Your task to perform on an android device: open app "Booking.com: Hotels and more" (install if not already installed), go to login, and select forgot password Image 0: 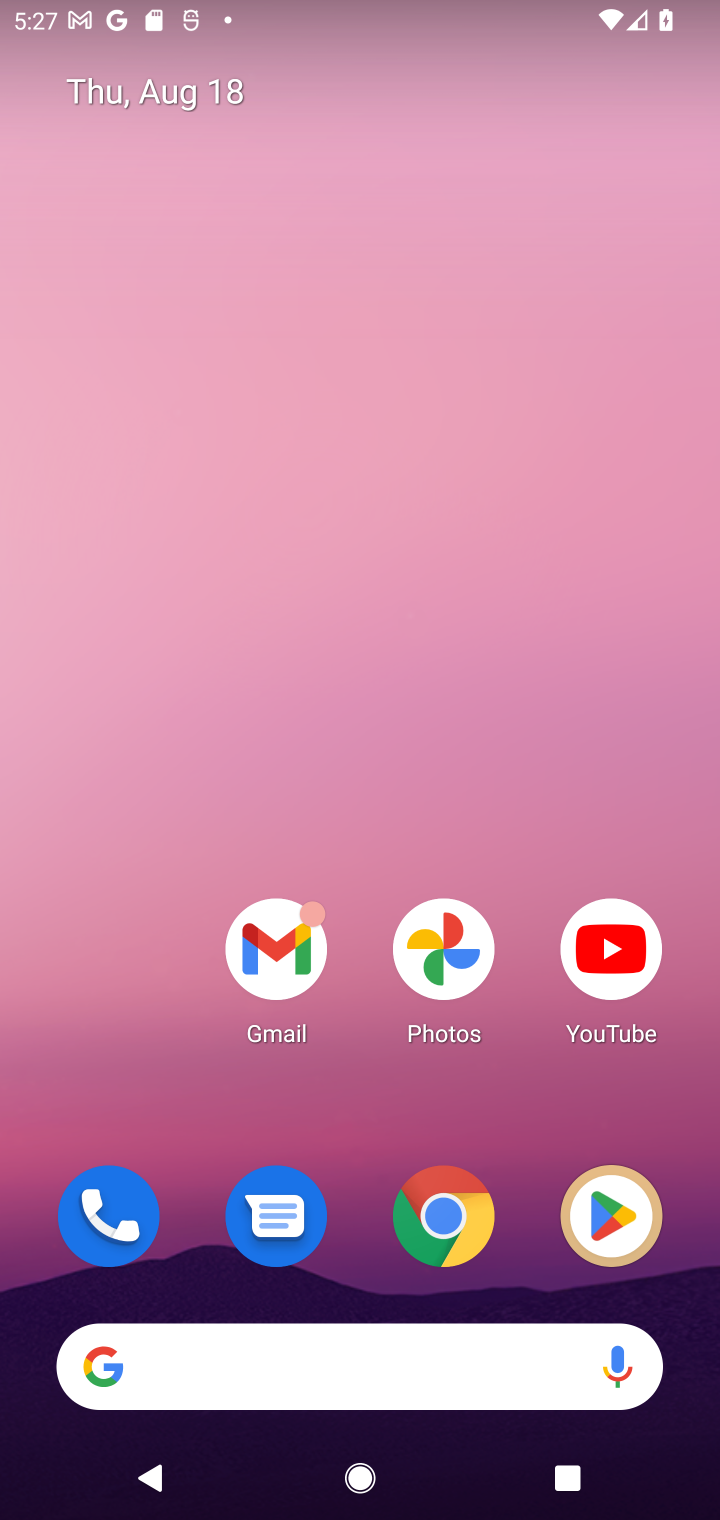
Step 0: click (612, 1220)
Your task to perform on an android device: open app "Booking.com: Hotels and more" (install if not already installed), go to login, and select forgot password Image 1: 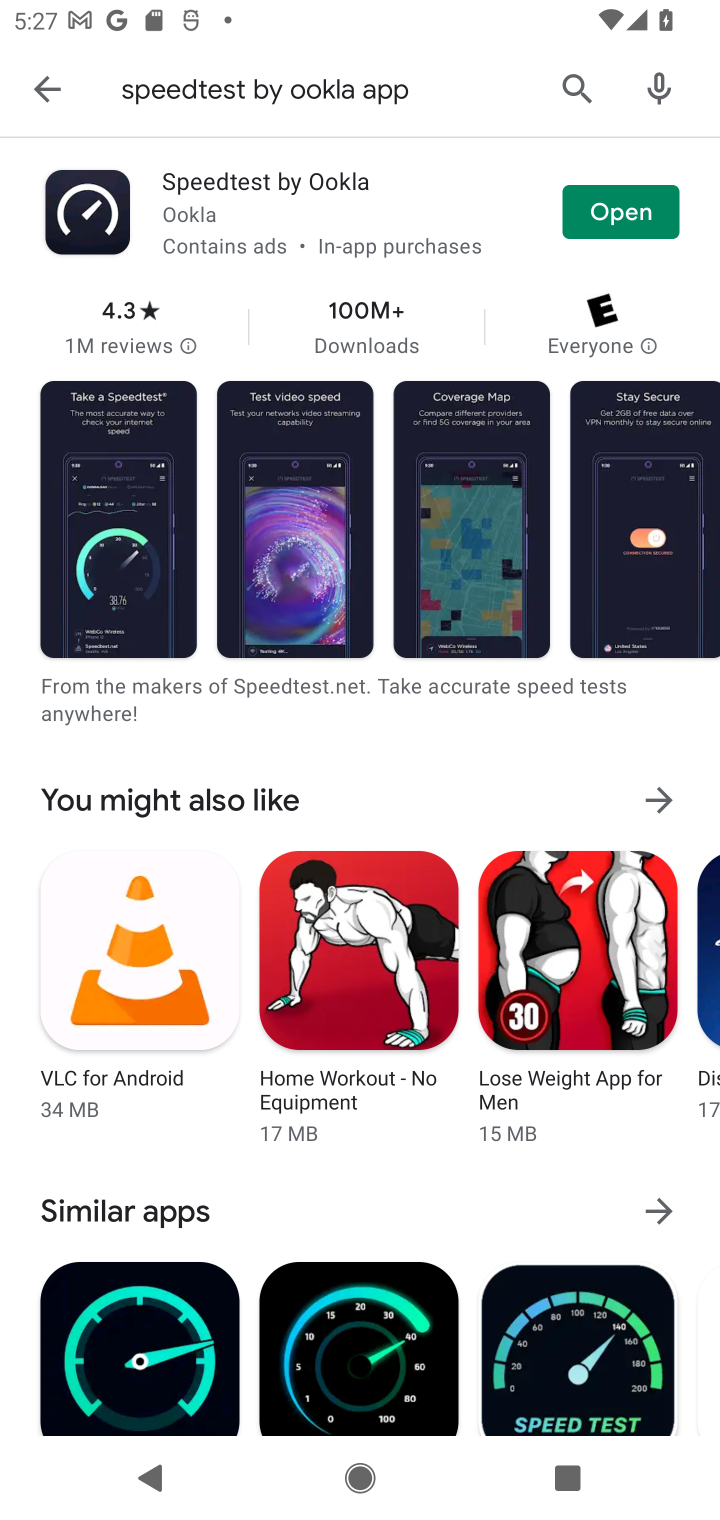
Step 1: click (571, 82)
Your task to perform on an android device: open app "Booking.com: Hotels and more" (install if not already installed), go to login, and select forgot password Image 2: 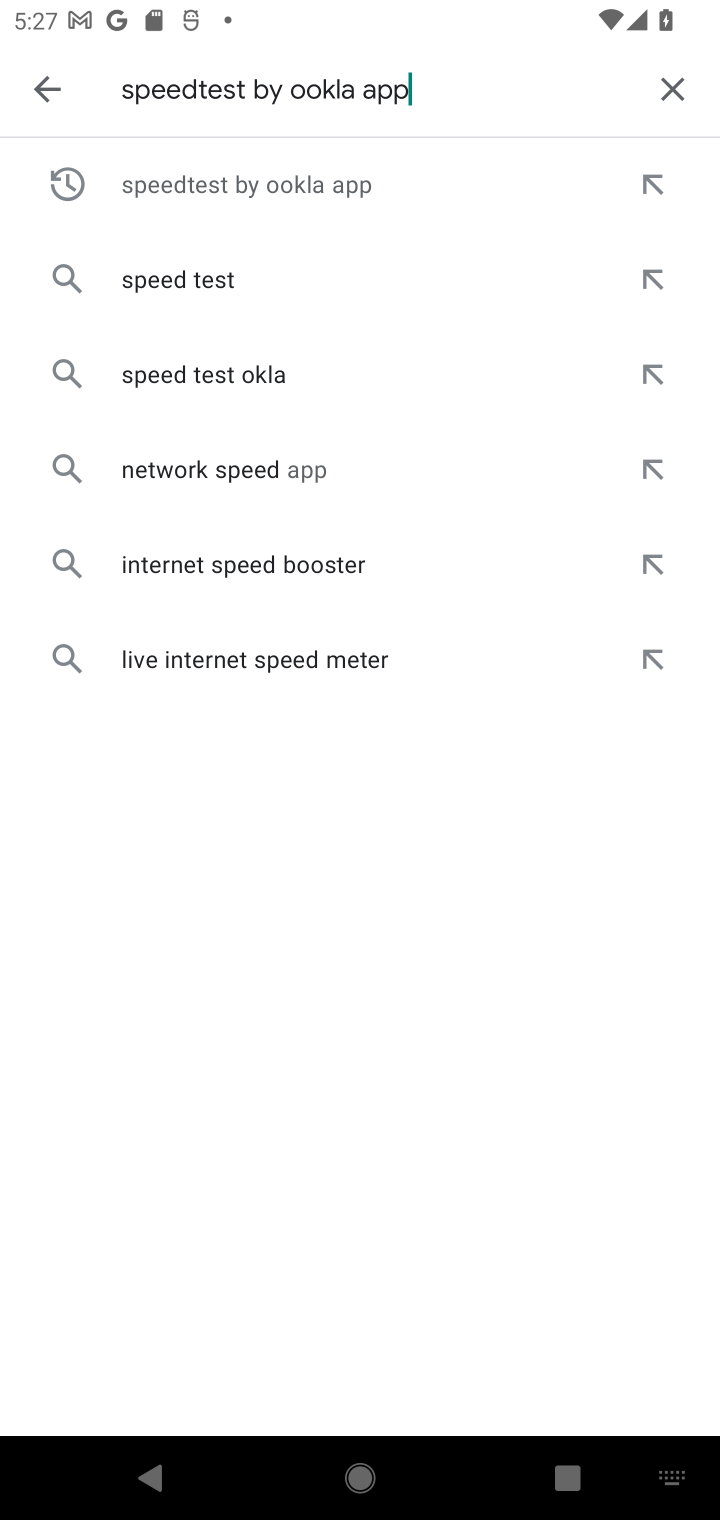
Step 2: click (664, 88)
Your task to perform on an android device: open app "Booking.com: Hotels and more" (install if not already installed), go to login, and select forgot password Image 3: 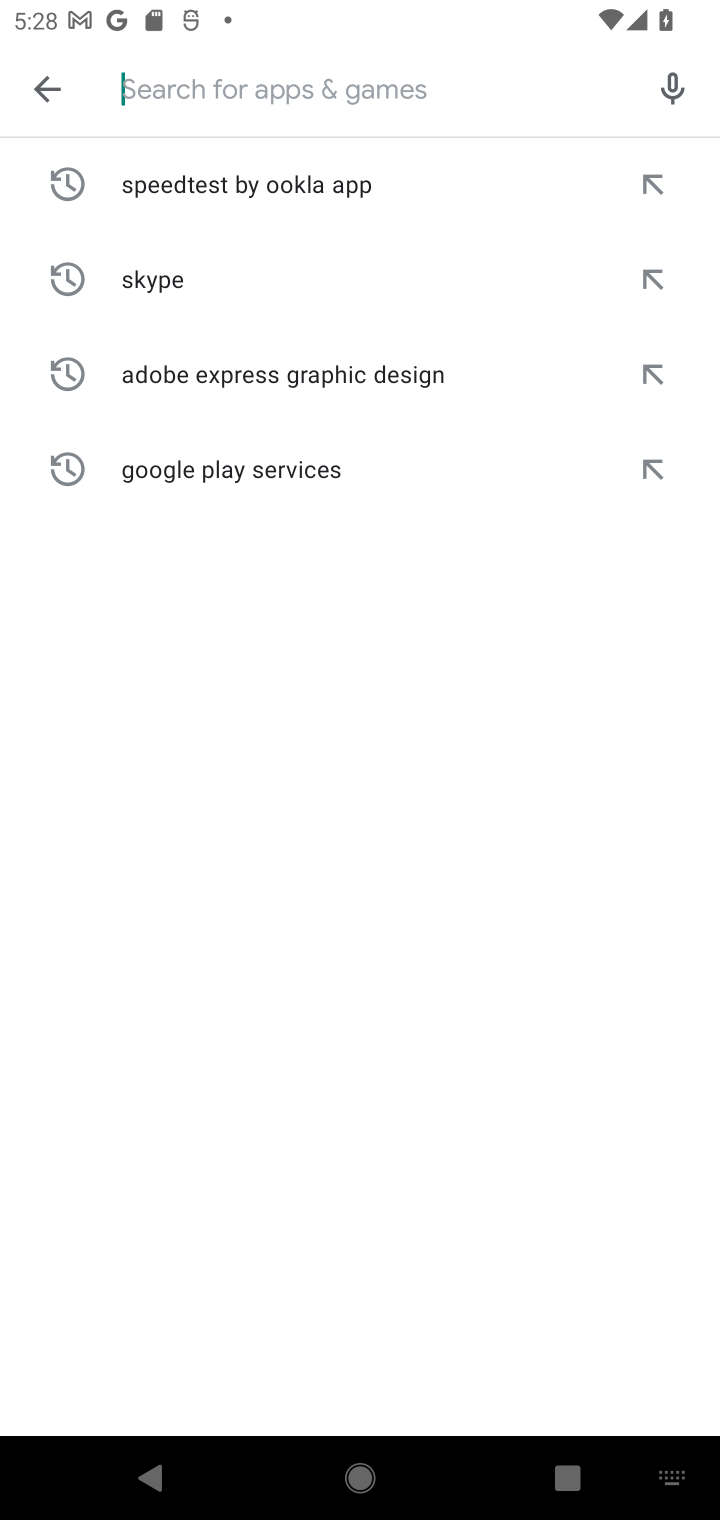
Step 3: type "Booking.com: Hotels and more"
Your task to perform on an android device: open app "Booking.com: Hotels and more" (install if not already installed), go to login, and select forgot password Image 4: 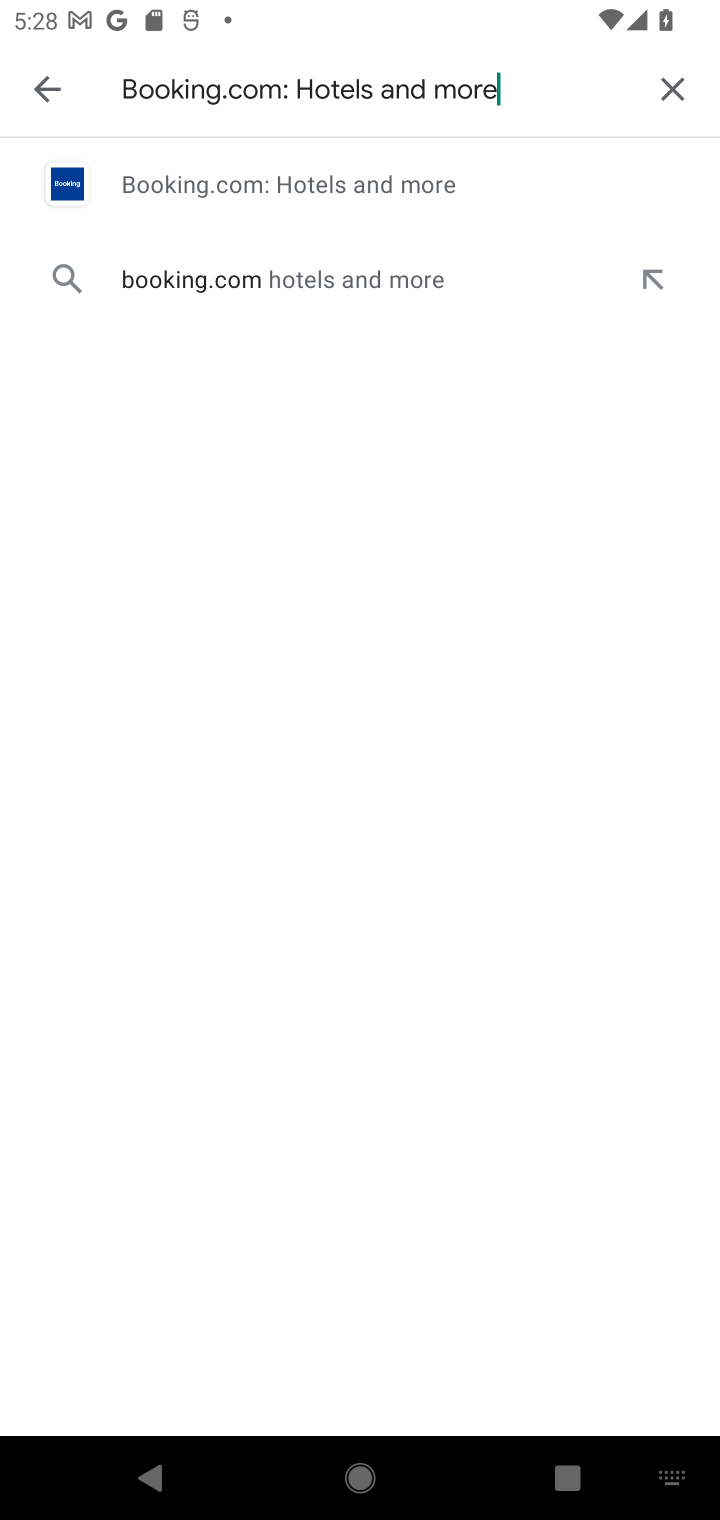
Step 4: click (287, 184)
Your task to perform on an android device: open app "Booking.com: Hotels and more" (install if not already installed), go to login, and select forgot password Image 5: 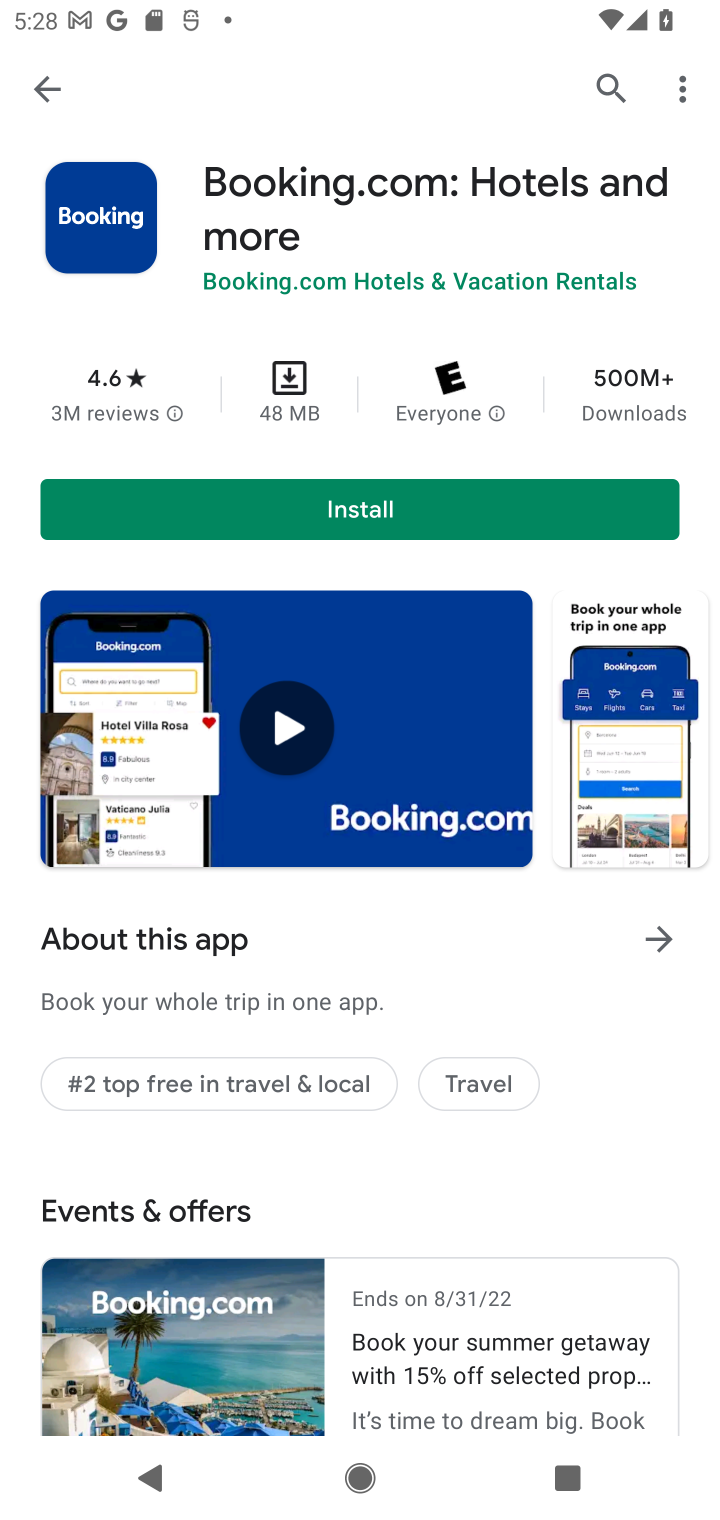
Step 5: click (350, 508)
Your task to perform on an android device: open app "Booking.com: Hotels and more" (install if not already installed), go to login, and select forgot password Image 6: 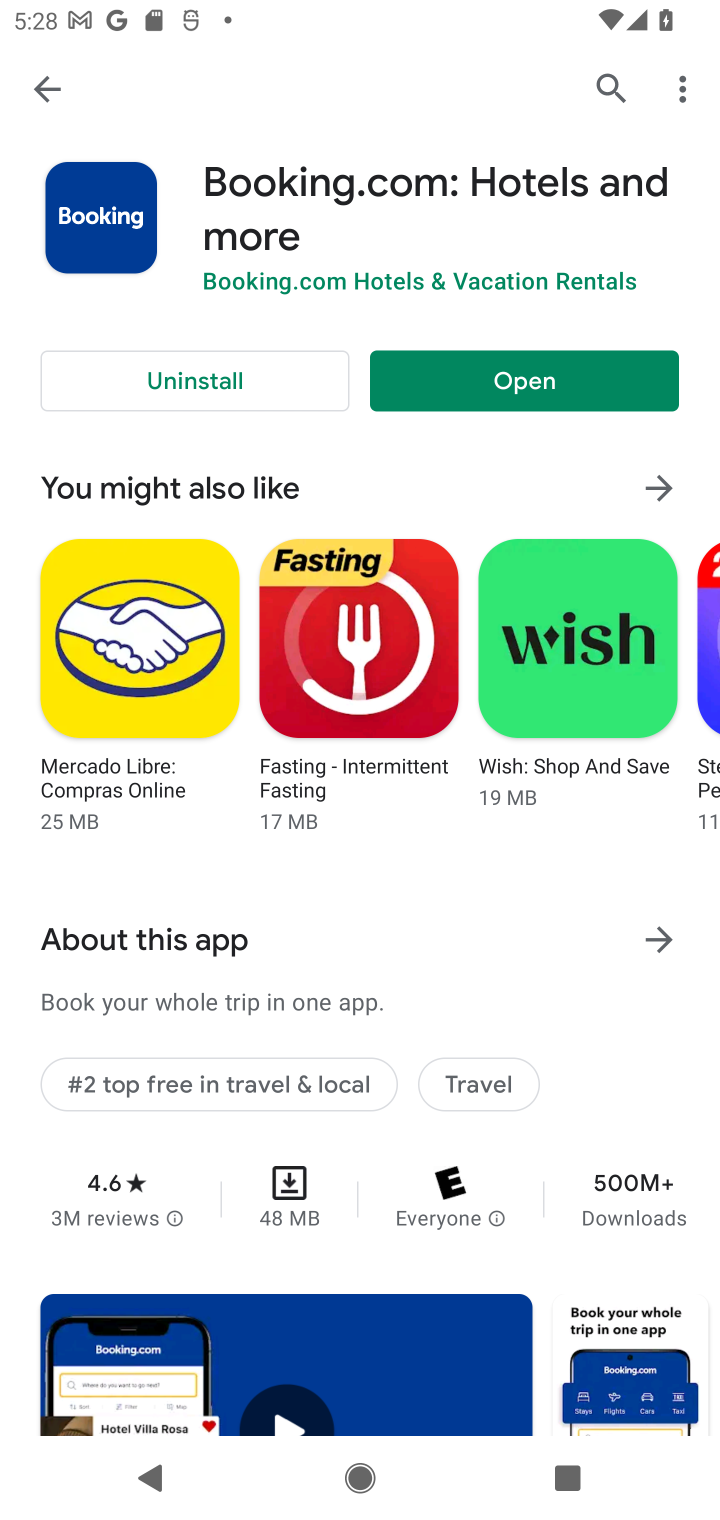
Step 6: click (523, 392)
Your task to perform on an android device: open app "Booking.com: Hotels and more" (install if not already installed), go to login, and select forgot password Image 7: 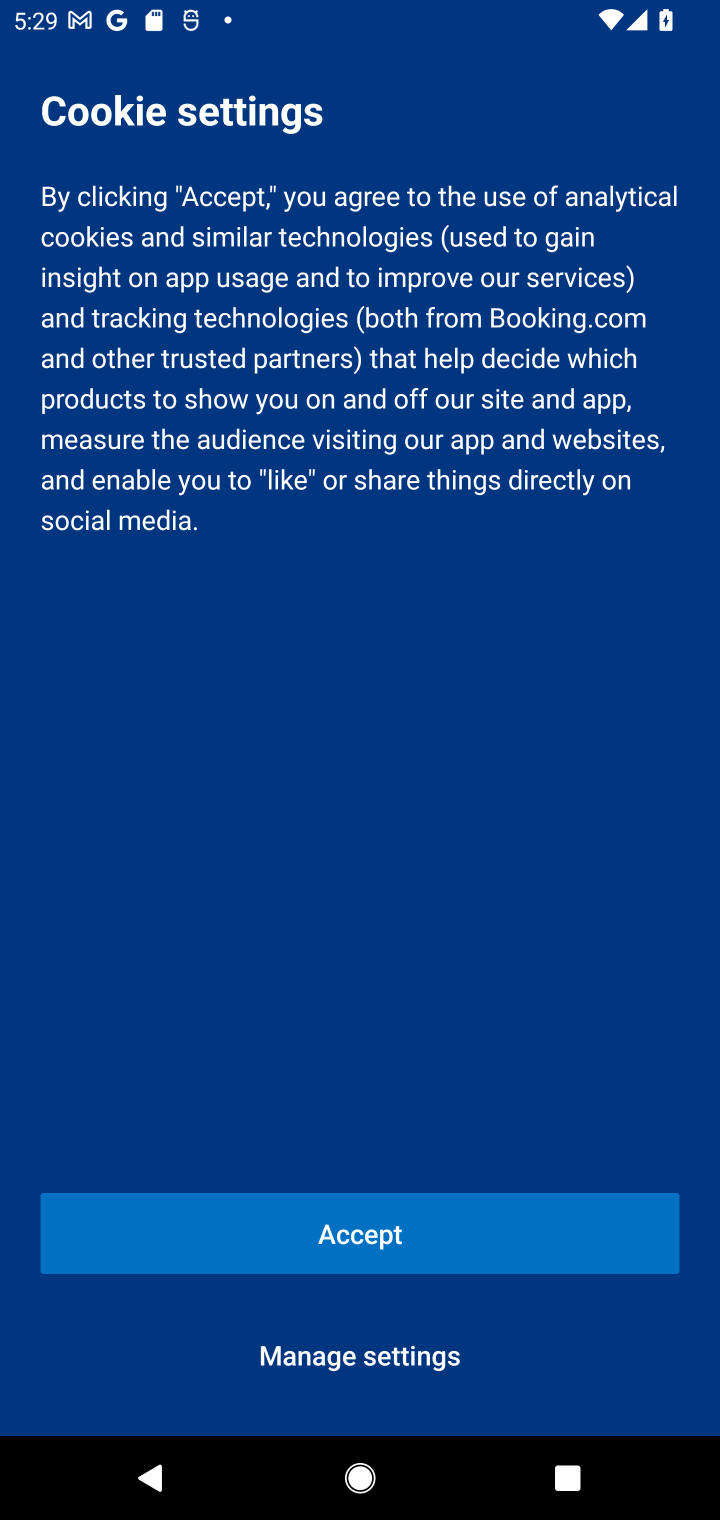
Step 7: click (353, 1242)
Your task to perform on an android device: open app "Booking.com: Hotels and more" (install if not already installed), go to login, and select forgot password Image 8: 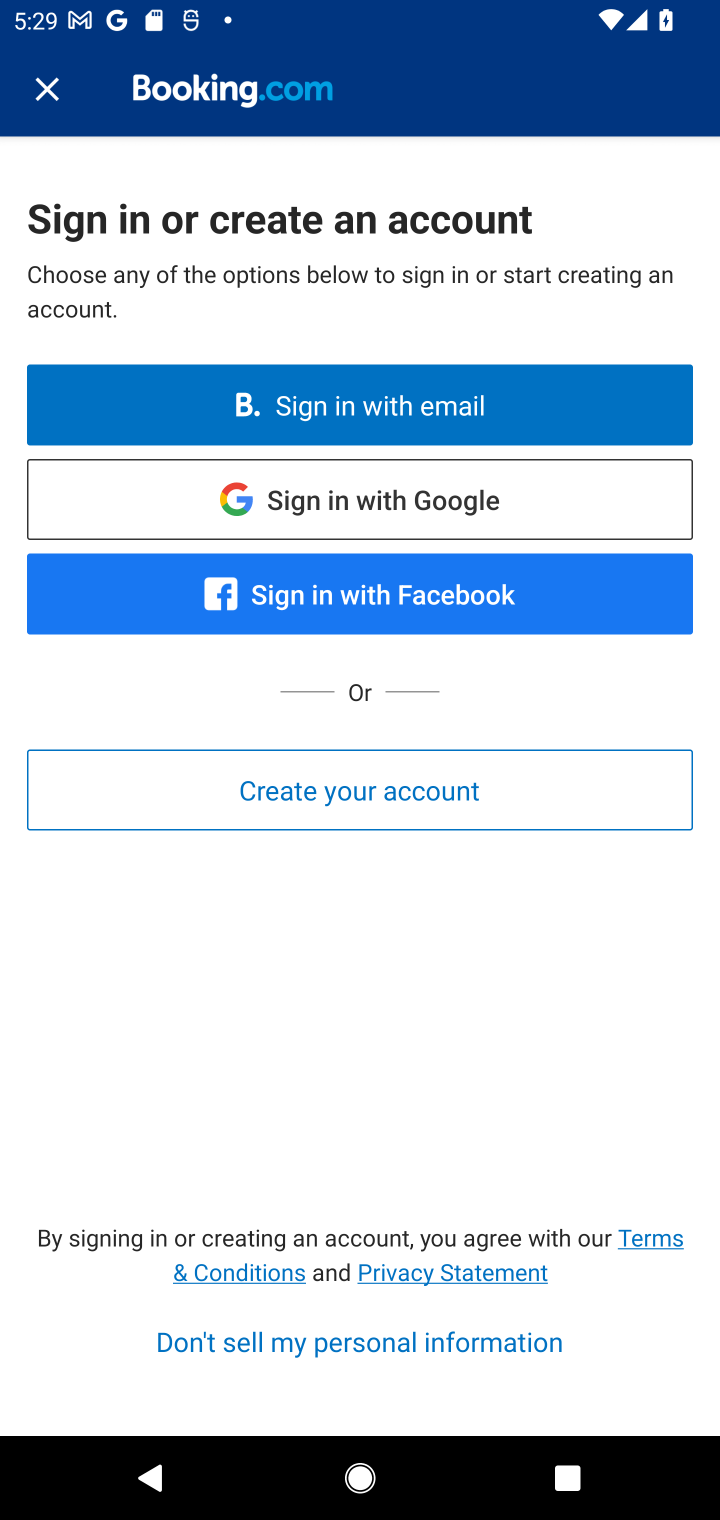
Step 8: click (334, 404)
Your task to perform on an android device: open app "Booking.com: Hotels and more" (install if not already installed), go to login, and select forgot password Image 9: 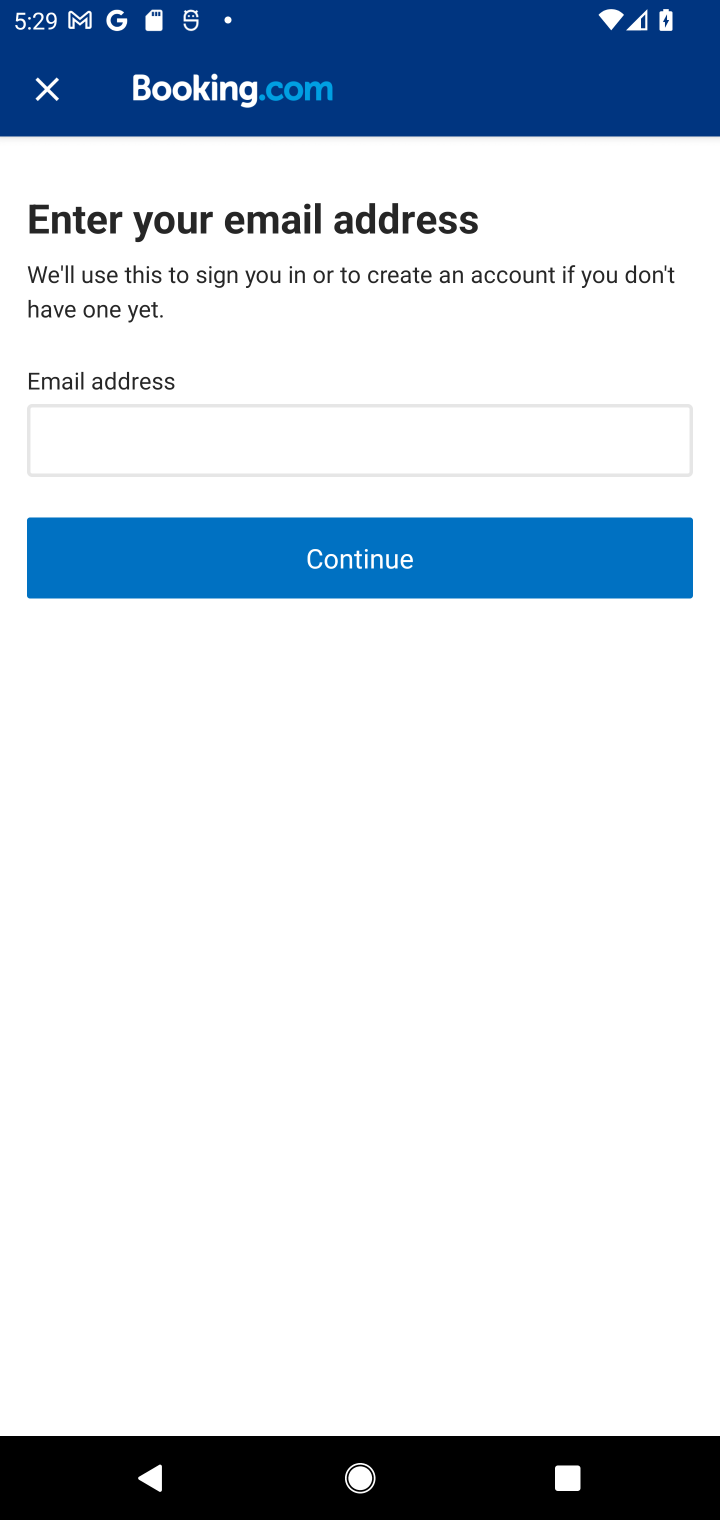
Step 9: click (41, 79)
Your task to perform on an android device: open app "Booking.com: Hotels and more" (install if not already installed), go to login, and select forgot password Image 10: 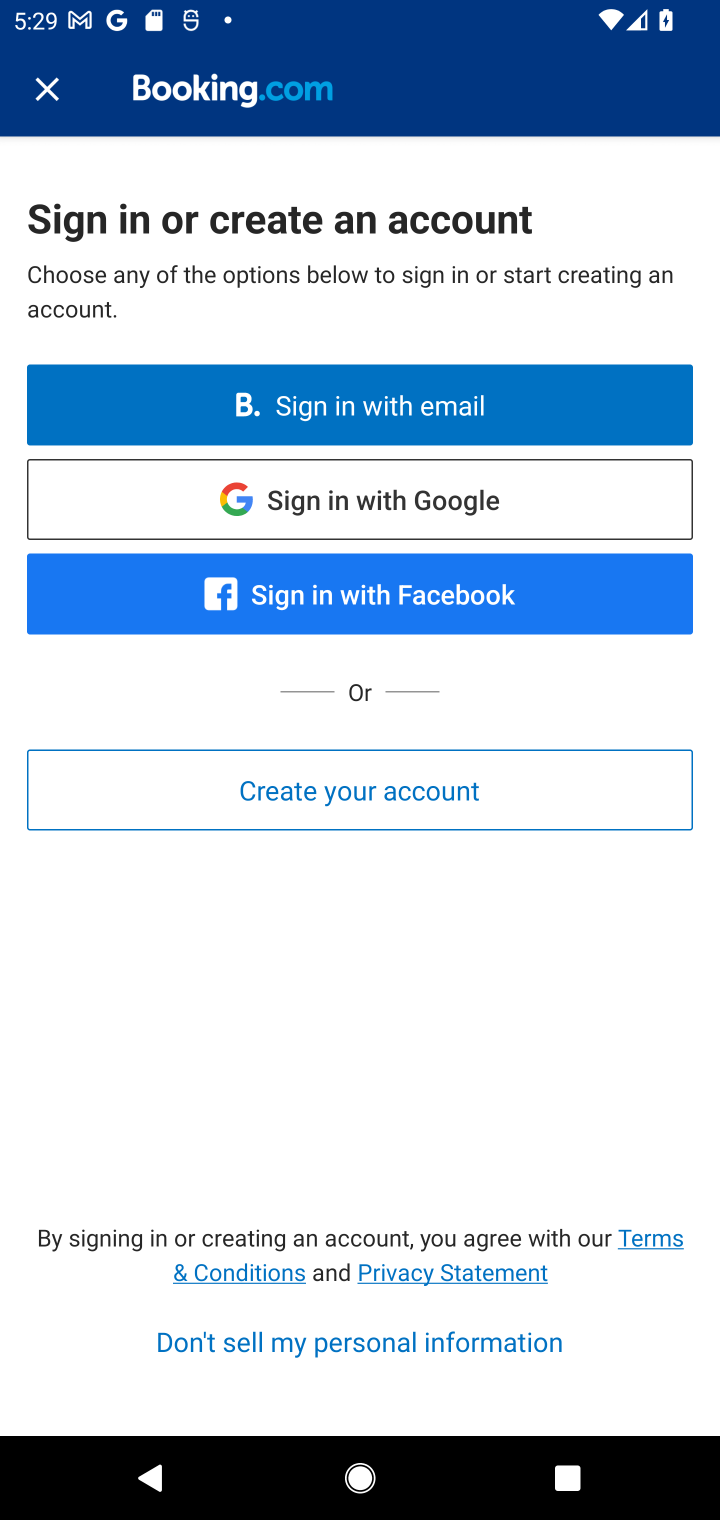
Step 10: click (327, 804)
Your task to perform on an android device: open app "Booking.com: Hotels and more" (install if not already installed), go to login, and select forgot password Image 11: 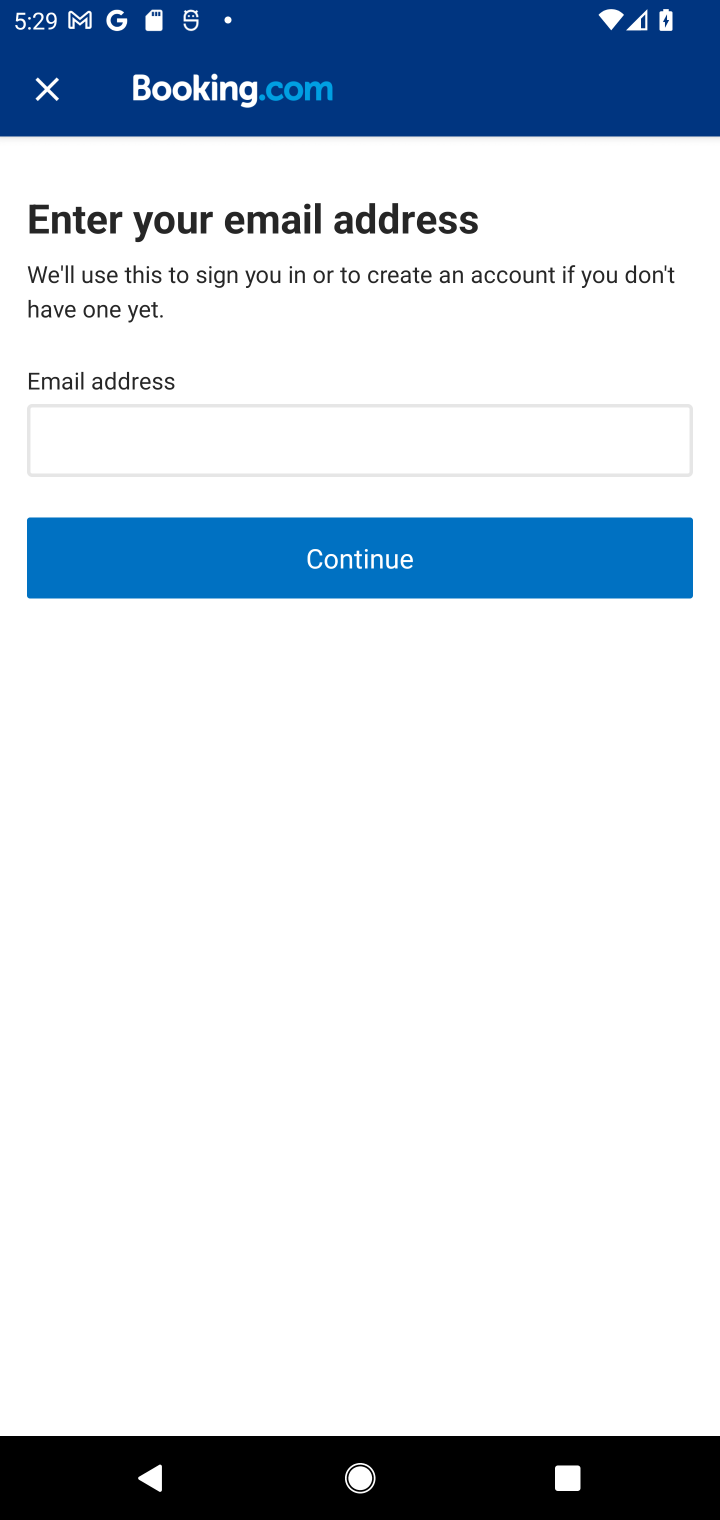
Step 11: click (43, 86)
Your task to perform on an android device: open app "Booking.com: Hotels and more" (install if not already installed), go to login, and select forgot password Image 12: 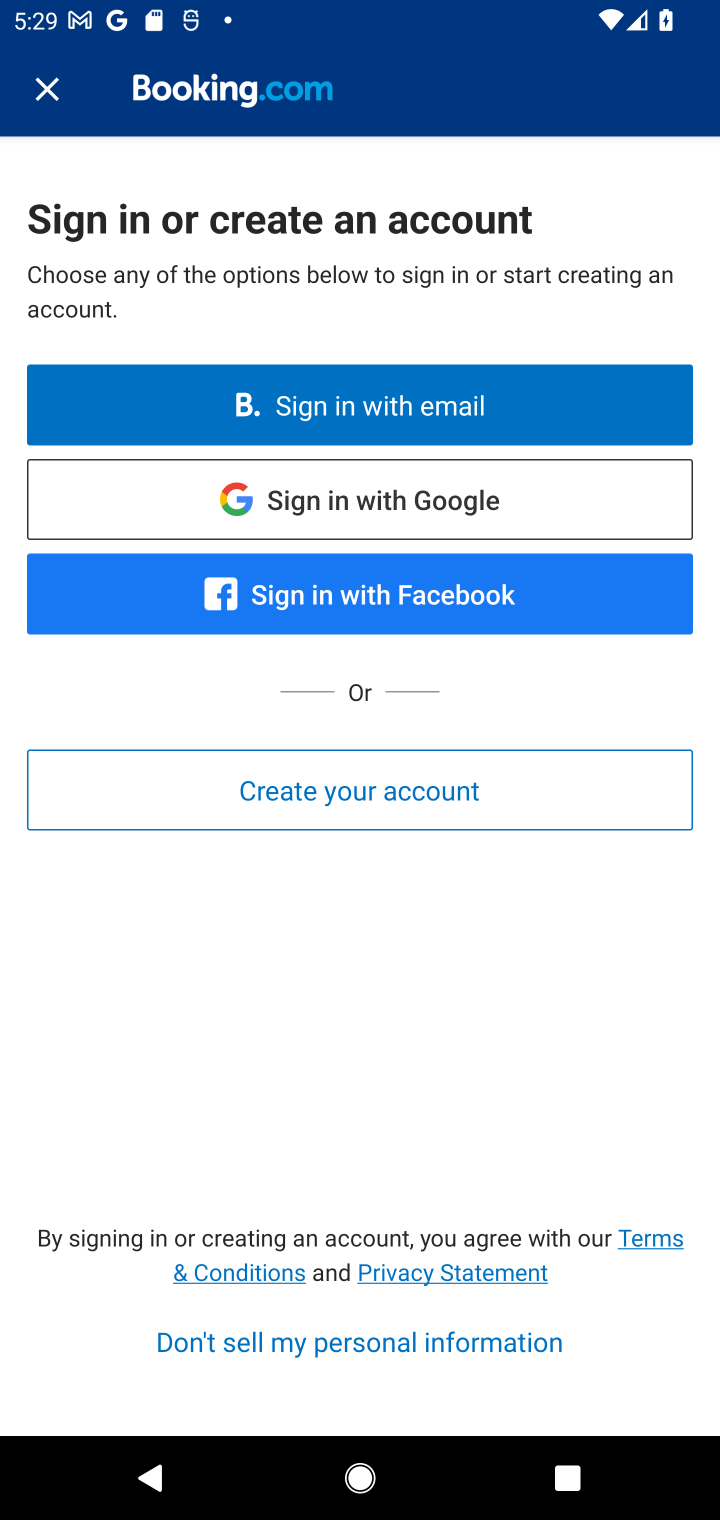
Step 12: task complete